Your task to perform on an android device: read, delete, or share a saved page in the chrome app Image 0: 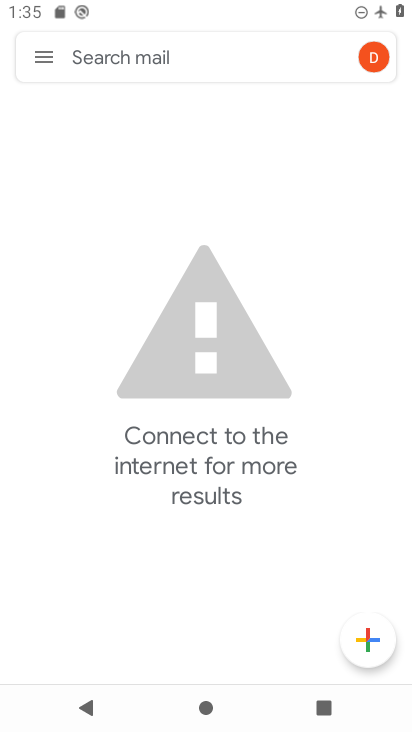
Step 0: press home button
Your task to perform on an android device: read, delete, or share a saved page in the chrome app Image 1: 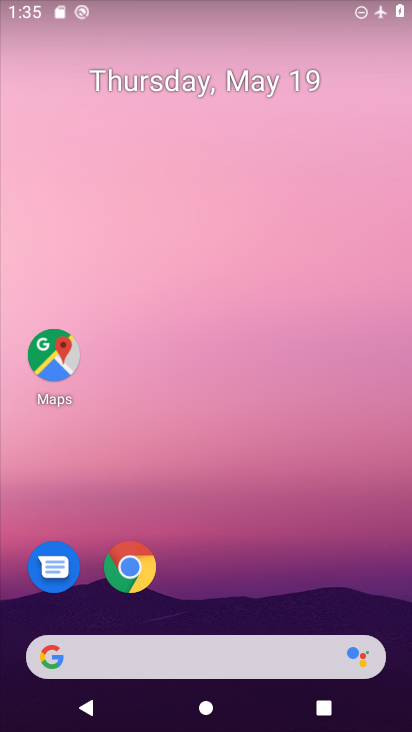
Step 1: click (137, 564)
Your task to perform on an android device: read, delete, or share a saved page in the chrome app Image 2: 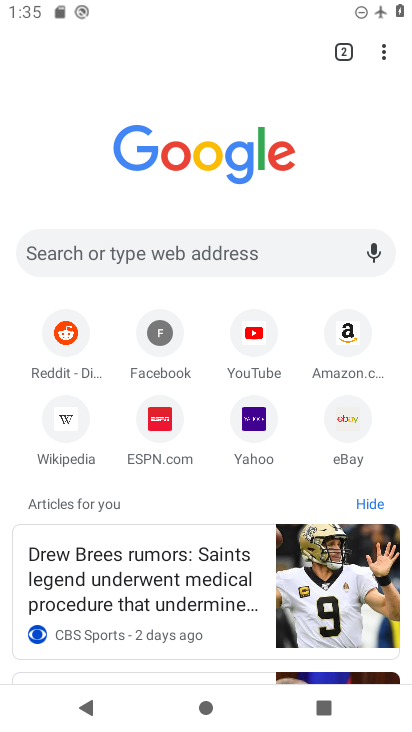
Step 2: click (384, 47)
Your task to perform on an android device: read, delete, or share a saved page in the chrome app Image 3: 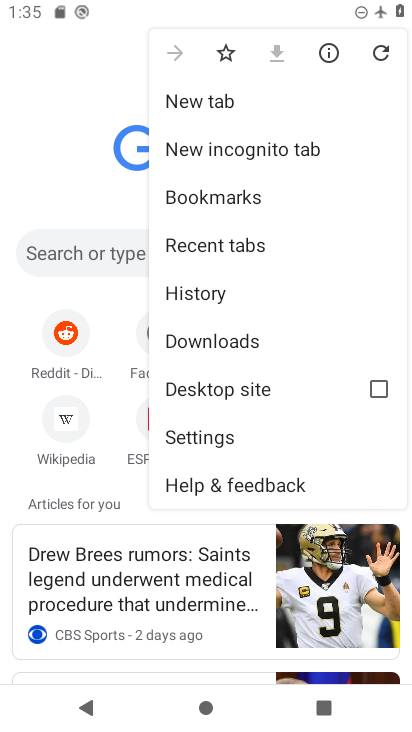
Step 3: click (233, 338)
Your task to perform on an android device: read, delete, or share a saved page in the chrome app Image 4: 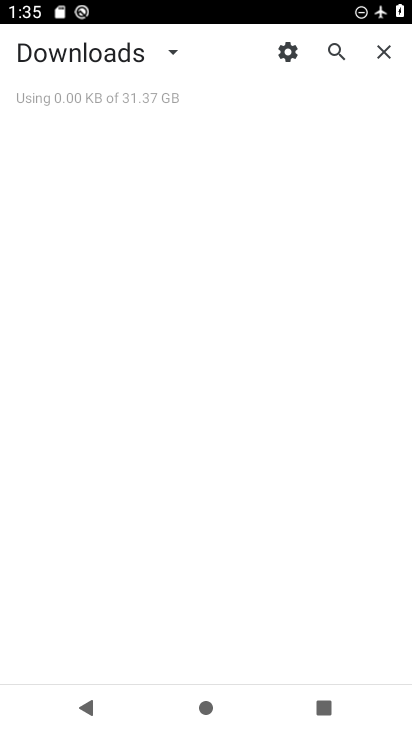
Step 4: task complete